Your task to perform on an android device: toggle data saver in the chrome app Image 0: 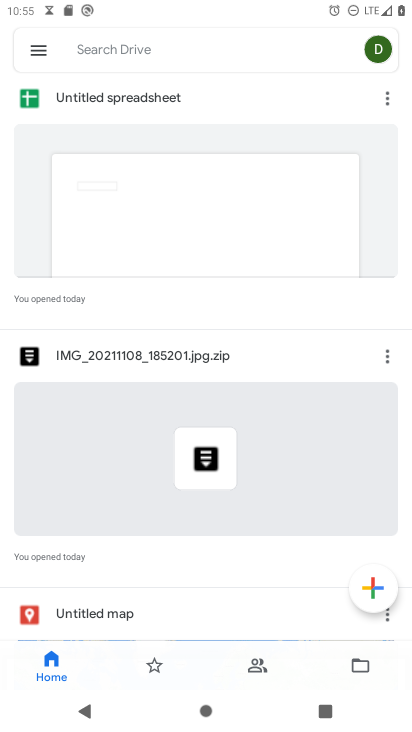
Step 0: press home button
Your task to perform on an android device: toggle data saver in the chrome app Image 1: 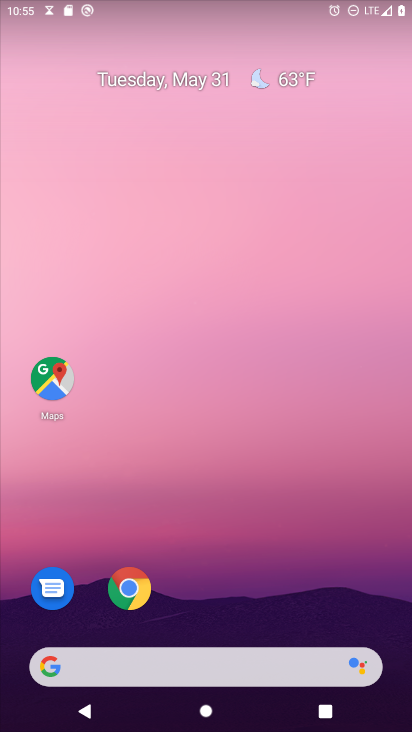
Step 1: click (130, 587)
Your task to perform on an android device: toggle data saver in the chrome app Image 2: 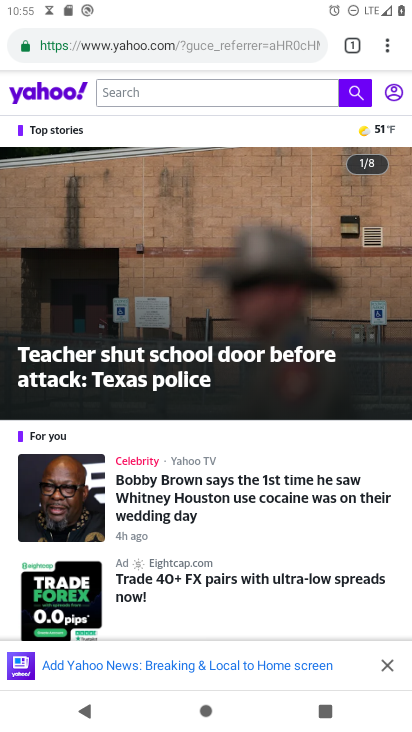
Step 2: click (386, 46)
Your task to perform on an android device: toggle data saver in the chrome app Image 3: 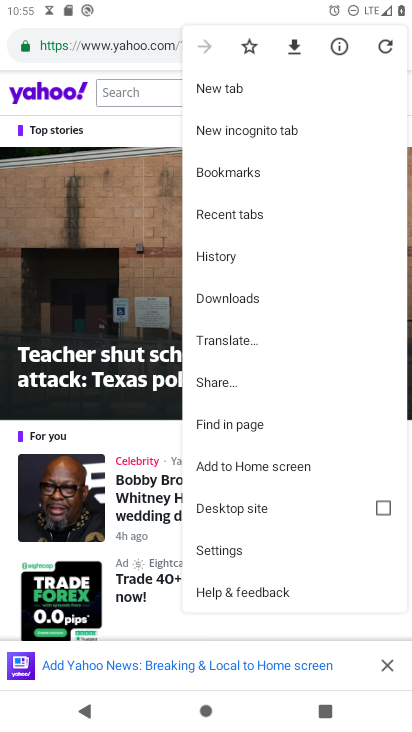
Step 3: click (226, 549)
Your task to perform on an android device: toggle data saver in the chrome app Image 4: 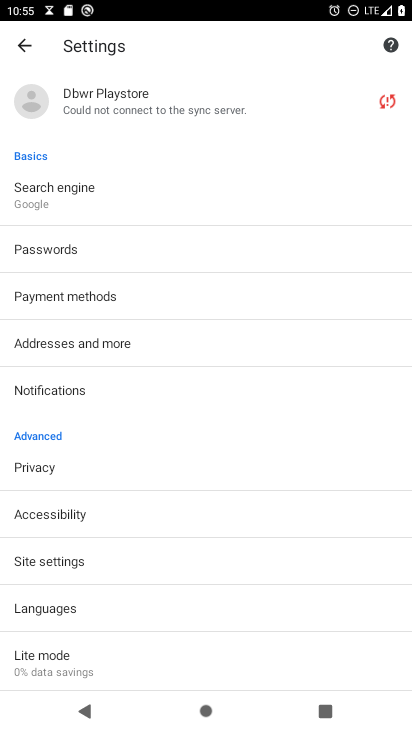
Step 4: click (49, 670)
Your task to perform on an android device: toggle data saver in the chrome app Image 5: 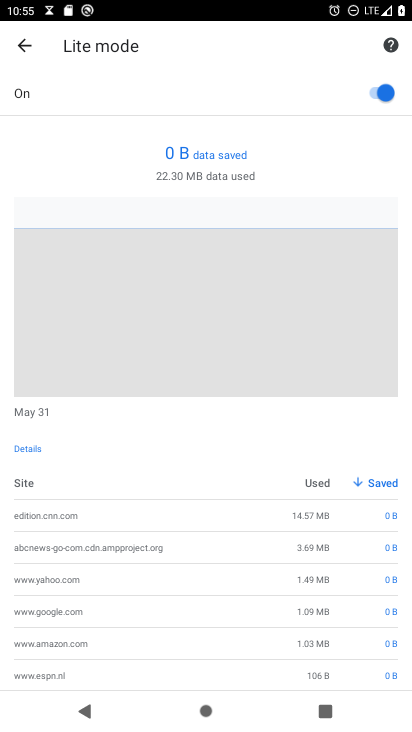
Step 5: click (372, 87)
Your task to perform on an android device: toggle data saver in the chrome app Image 6: 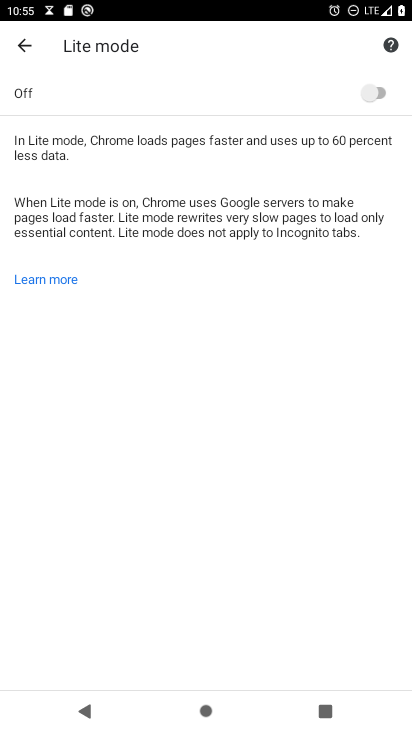
Step 6: task complete